Your task to perform on an android device: Go to Google maps Image 0: 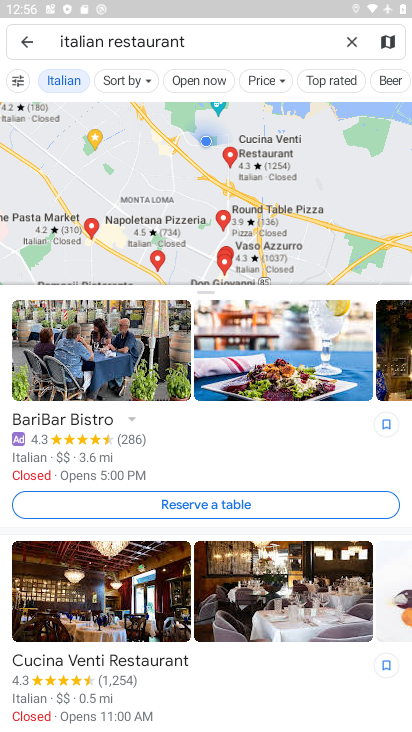
Step 0: press home button
Your task to perform on an android device: Go to Google maps Image 1: 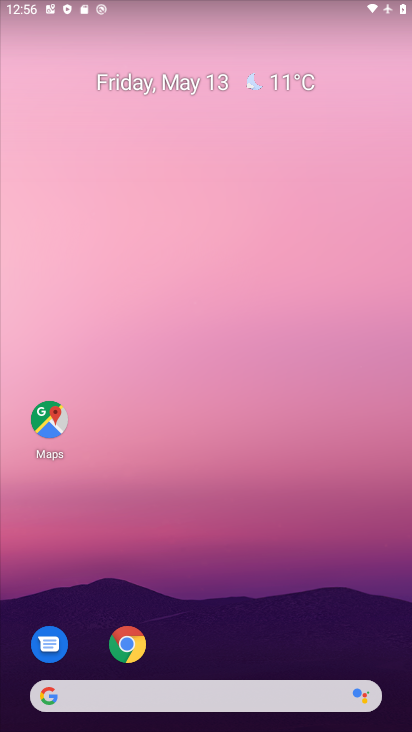
Step 1: drag from (217, 723) to (217, 276)
Your task to perform on an android device: Go to Google maps Image 2: 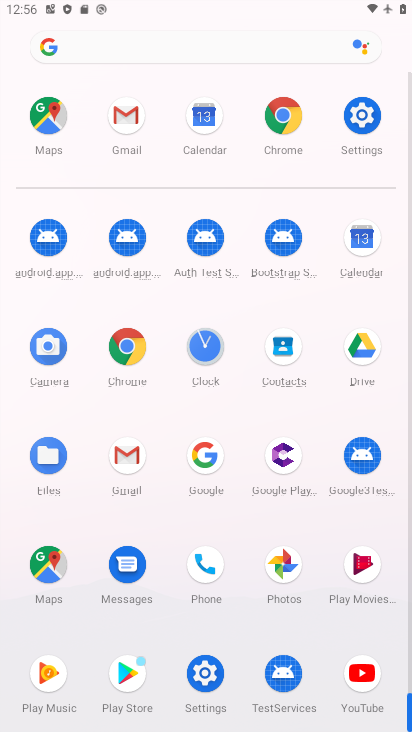
Step 2: click (46, 562)
Your task to perform on an android device: Go to Google maps Image 3: 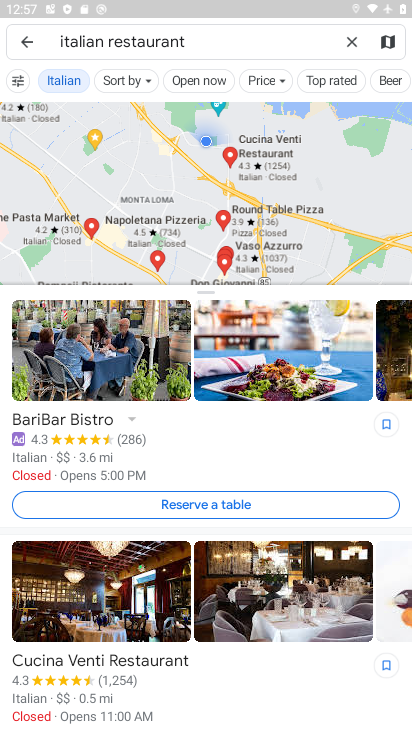
Step 3: task complete